Your task to perform on an android device: Open calendar and show me the fourth week of next month Image 0: 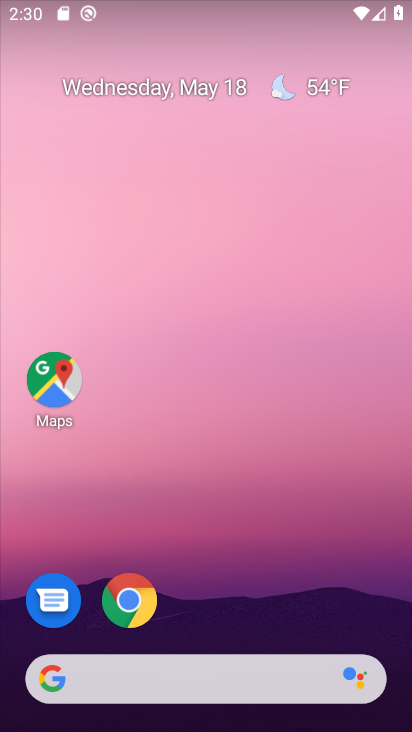
Step 0: drag from (209, 539) to (301, 44)
Your task to perform on an android device: Open calendar and show me the fourth week of next month Image 1: 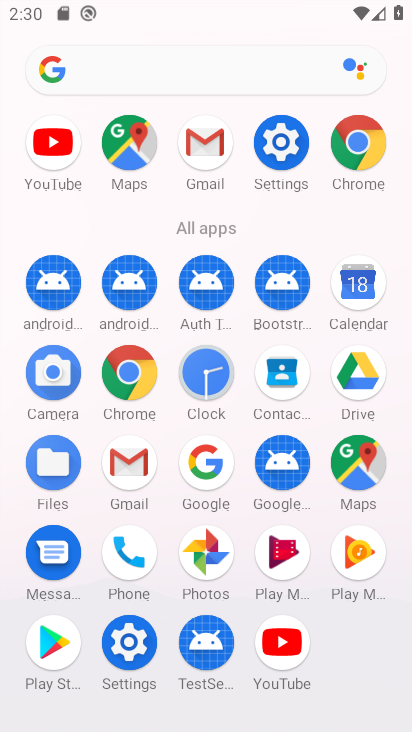
Step 1: click (370, 277)
Your task to perform on an android device: Open calendar and show me the fourth week of next month Image 2: 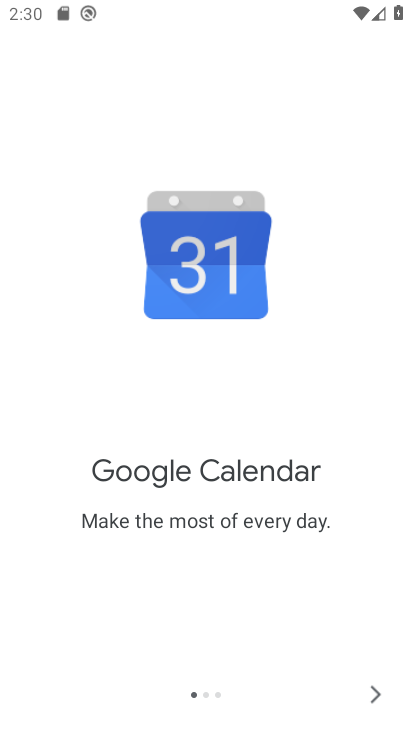
Step 2: click (366, 687)
Your task to perform on an android device: Open calendar and show me the fourth week of next month Image 3: 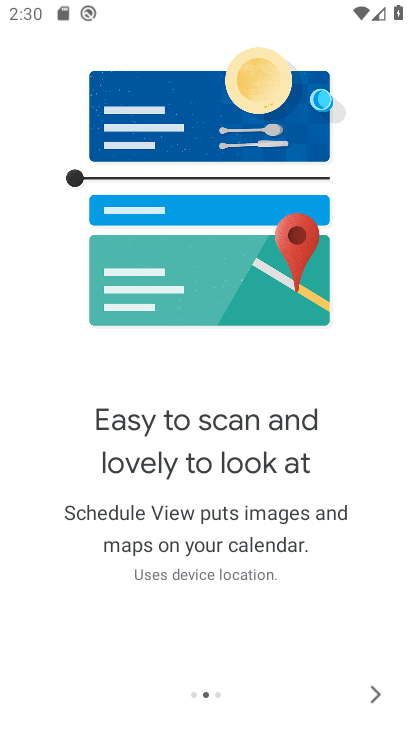
Step 3: click (374, 693)
Your task to perform on an android device: Open calendar and show me the fourth week of next month Image 4: 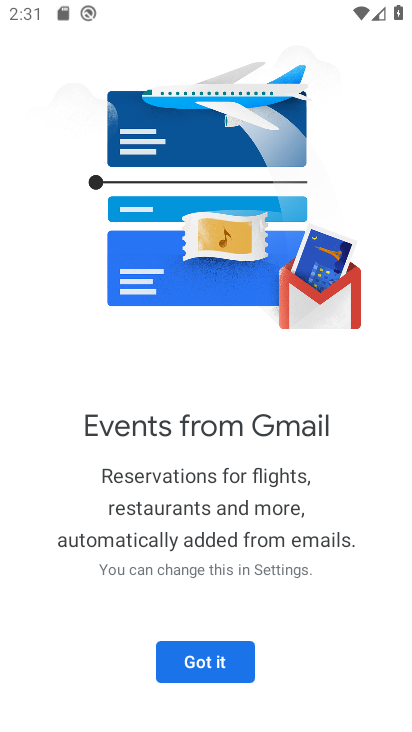
Step 4: click (227, 659)
Your task to perform on an android device: Open calendar and show me the fourth week of next month Image 5: 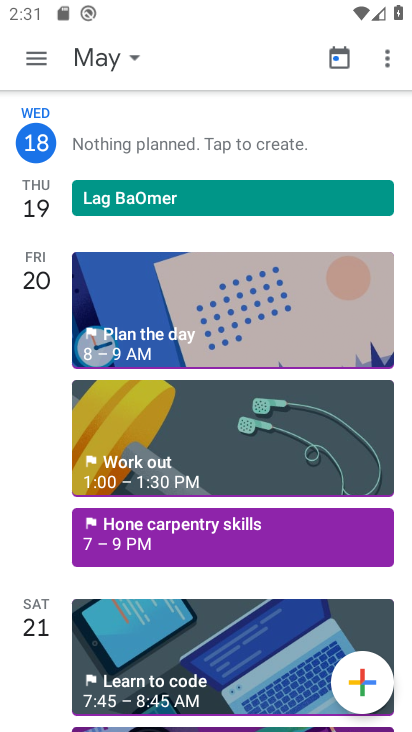
Step 5: click (32, 61)
Your task to perform on an android device: Open calendar and show me the fourth week of next month Image 6: 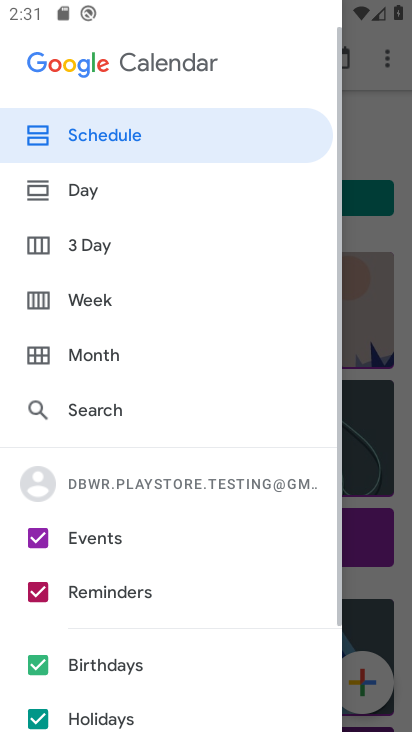
Step 6: click (95, 301)
Your task to perform on an android device: Open calendar and show me the fourth week of next month Image 7: 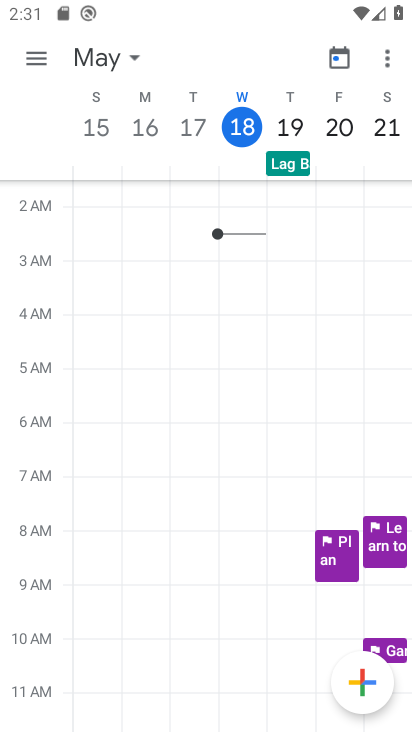
Step 7: task complete